Your task to perform on an android device: Open Google Chrome Image 0: 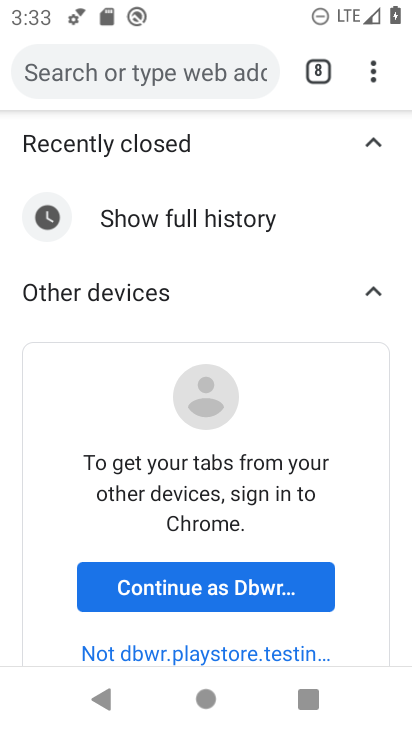
Step 0: press home button
Your task to perform on an android device: Open Google Chrome Image 1: 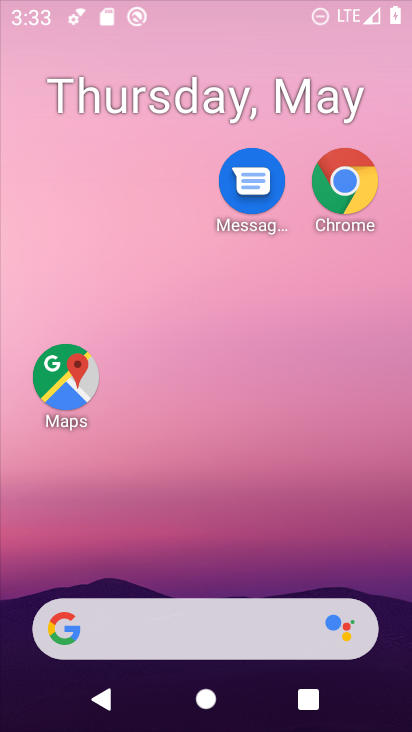
Step 1: drag from (250, 533) to (303, 6)
Your task to perform on an android device: Open Google Chrome Image 2: 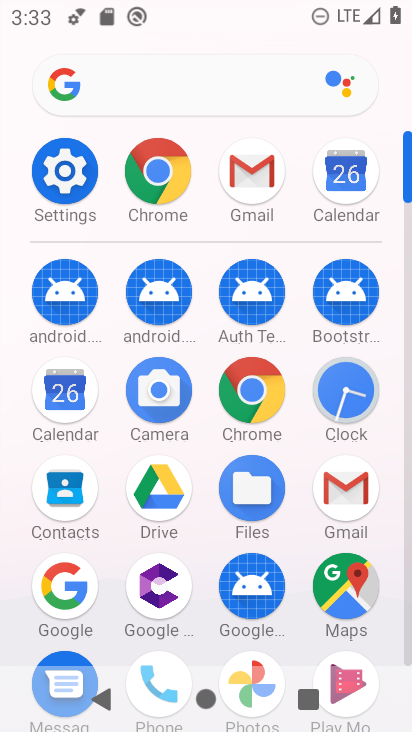
Step 2: click (174, 173)
Your task to perform on an android device: Open Google Chrome Image 3: 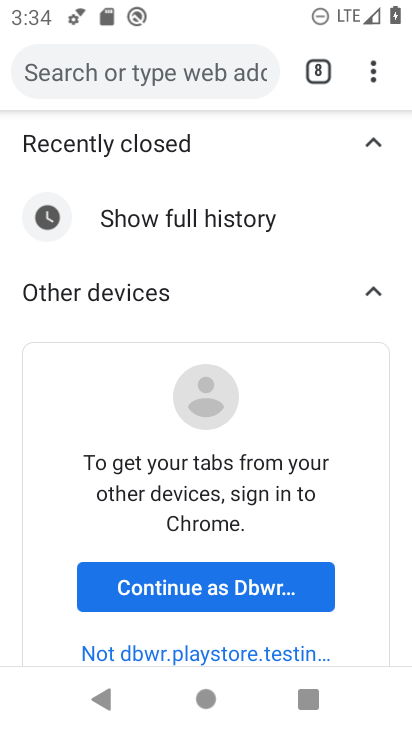
Step 3: click (325, 67)
Your task to perform on an android device: Open Google Chrome Image 4: 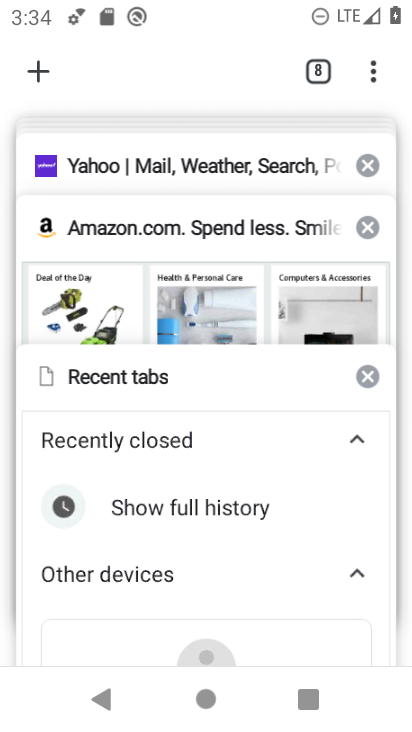
Step 4: click (37, 72)
Your task to perform on an android device: Open Google Chrome Image 5: 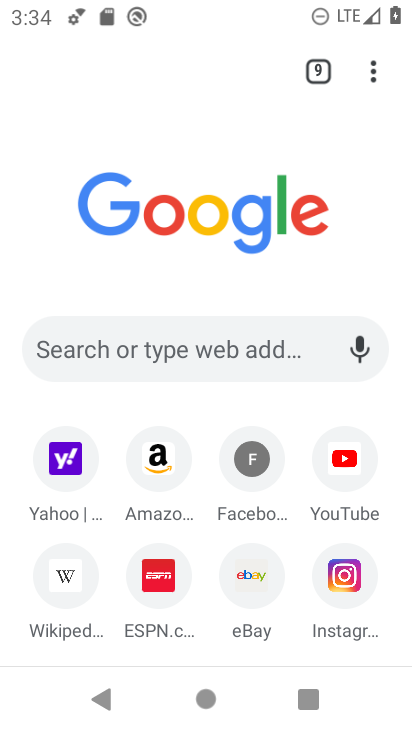
Step 5: task complete